Your task to perform on an android device: Go to battery settings Image 0: 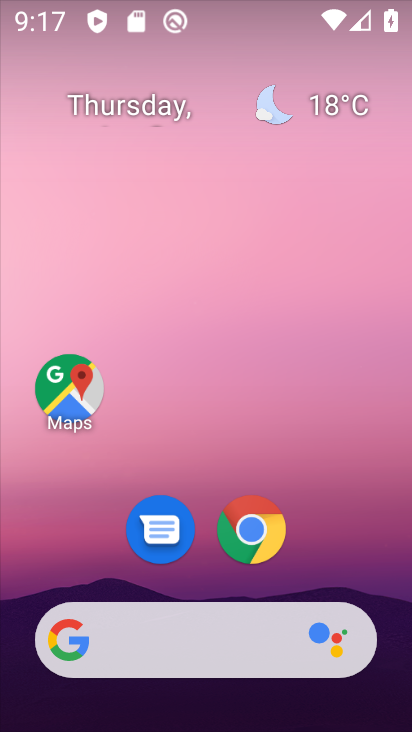
Step 0: drag from (376, 632) to (345, 153)
Your task to perform on an android device: Go to battery settings Image 1: 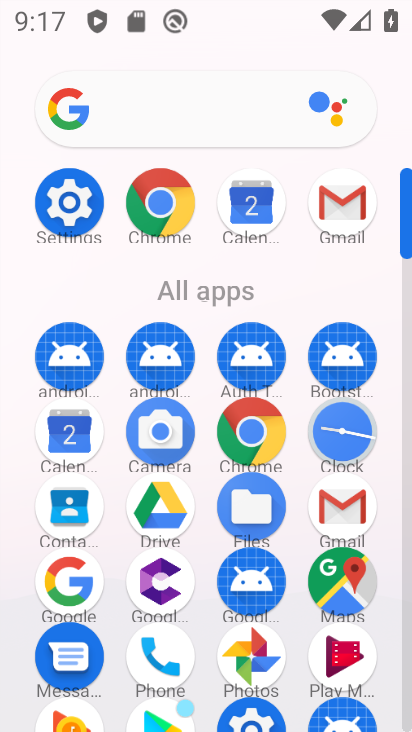
Step 1: click (59, 222)
Your task to perform on an android device: Go to battery settings Image 2: 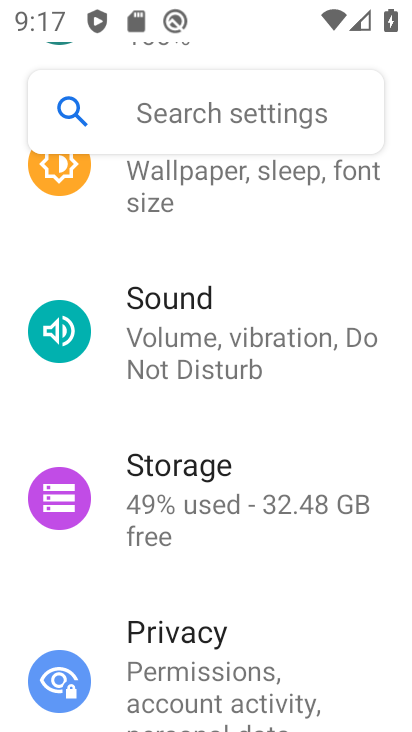
Step 2: drag from (312, 212) to (326, 571)
Your task to perform on an android device: Go to battery settings Image 3: 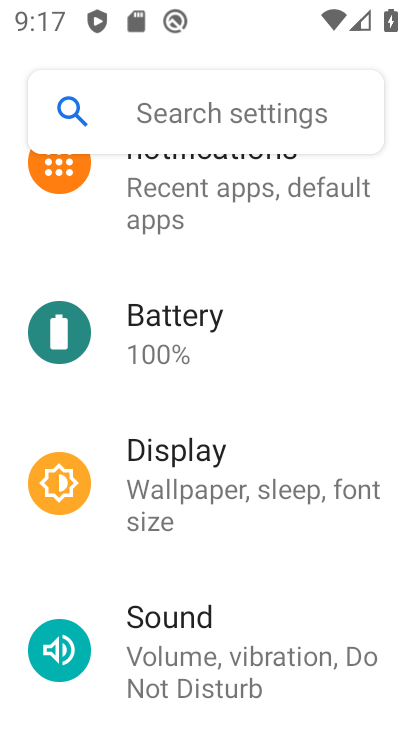
Step 3: click (163, 319)
Your task to perform on an android device: Go to battery settings Image 4: 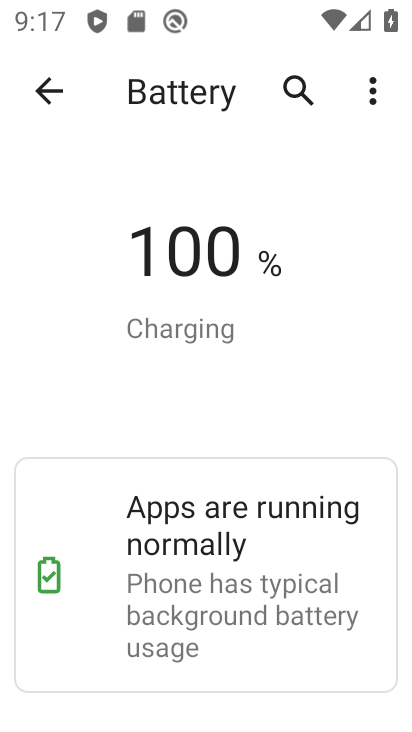
Step 4: task complete